Your task to perform on an android device: turn on airplane mode Image 0: 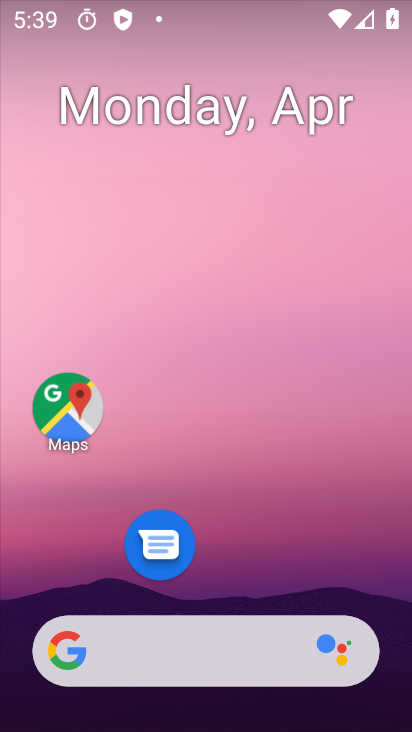
Step 0: press home button
Your task to perform on an android device: turn on airplane mode Image 1: 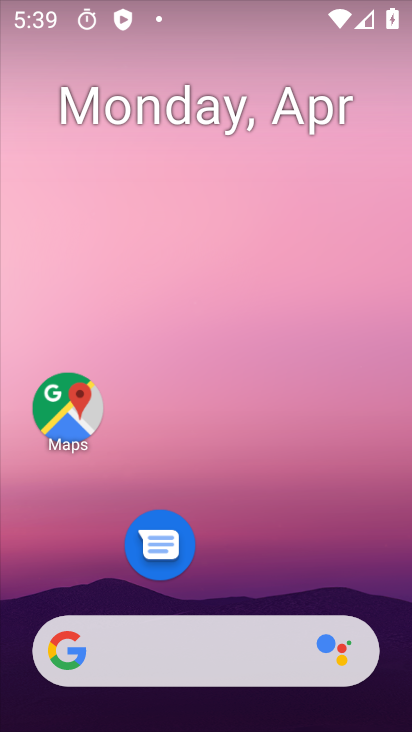
Step 1: drag from (276, 8) to (250, 661)
Your task to perform on an android device: turn on airplane mode Image 2: 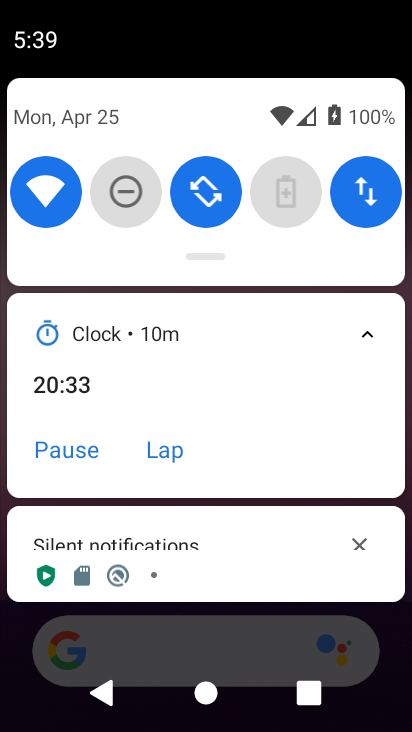
Step 2: drag from (251, 241) to (210, 716)
Your task to perform on an android device: turn on airplane mode Image 3: 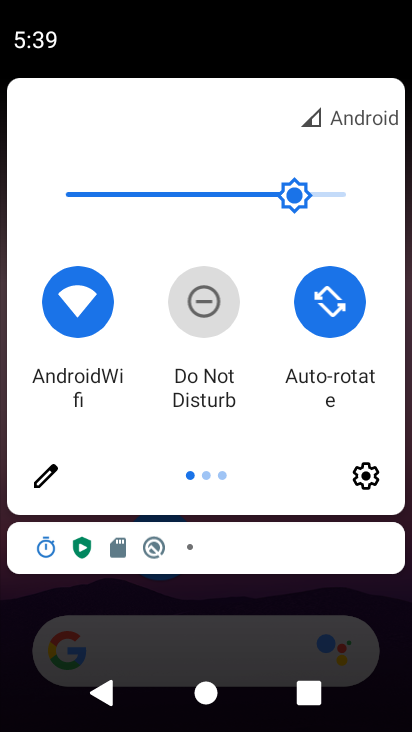
Step 3: drag from (369, 257) to (85, 229)
Your task to perform on an android device: turn on airplane mode Image 4: 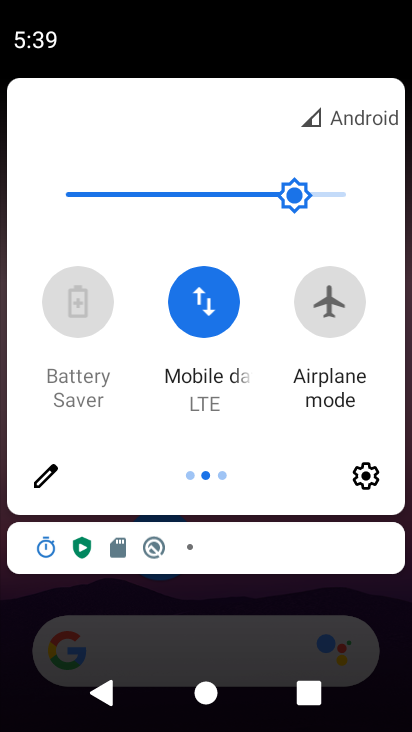
Step 4: click (340, 305)
Your task to perform on an android device: turn on airplane mode Image 5: 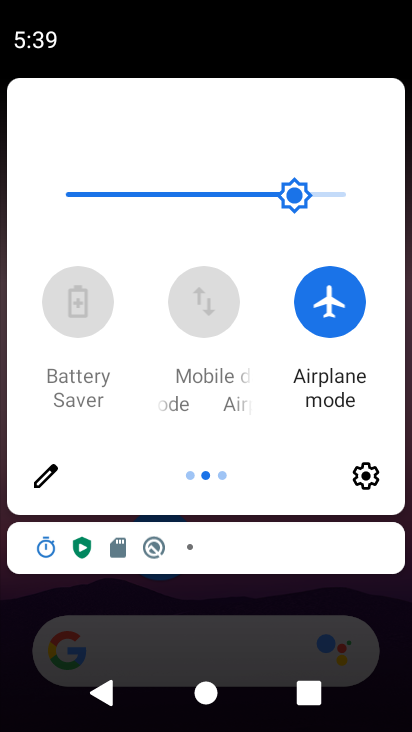
Step 5: task complete